Your task to perform on an android device: Open the web browser Image 0: 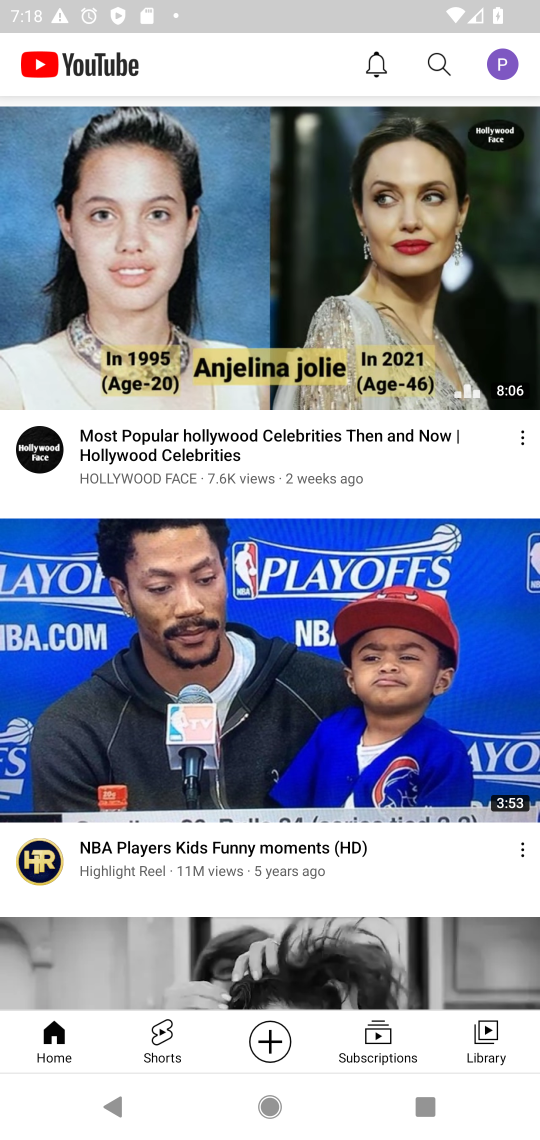
Step 0: press home button
Your task to perform on an android device: Open the web browser Image 1: 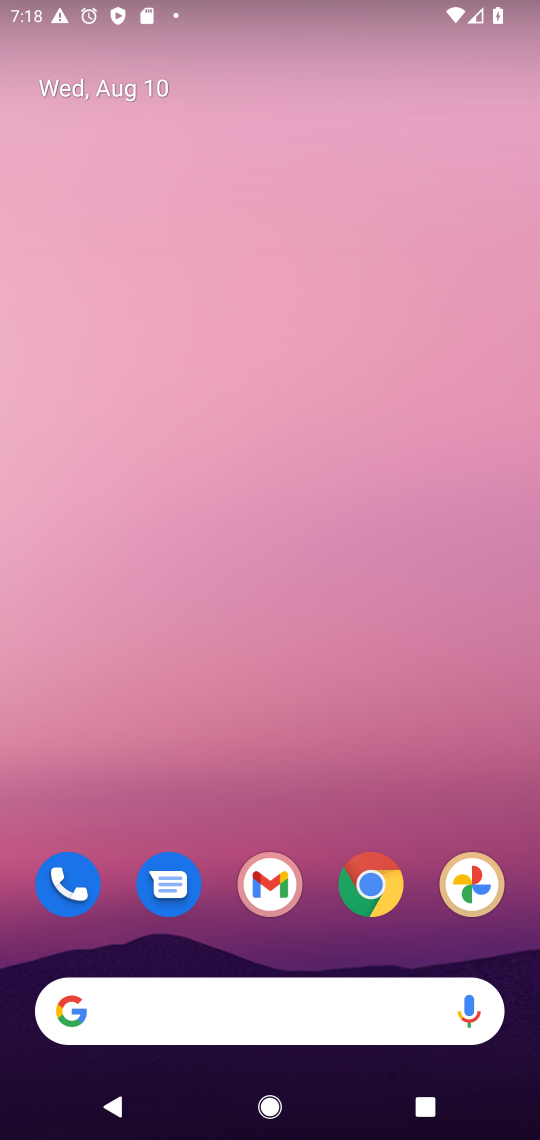
Step 1: drag from (263, 547) to (516, 591)
Your task to perform on an android device: Open the web browser Image 2: 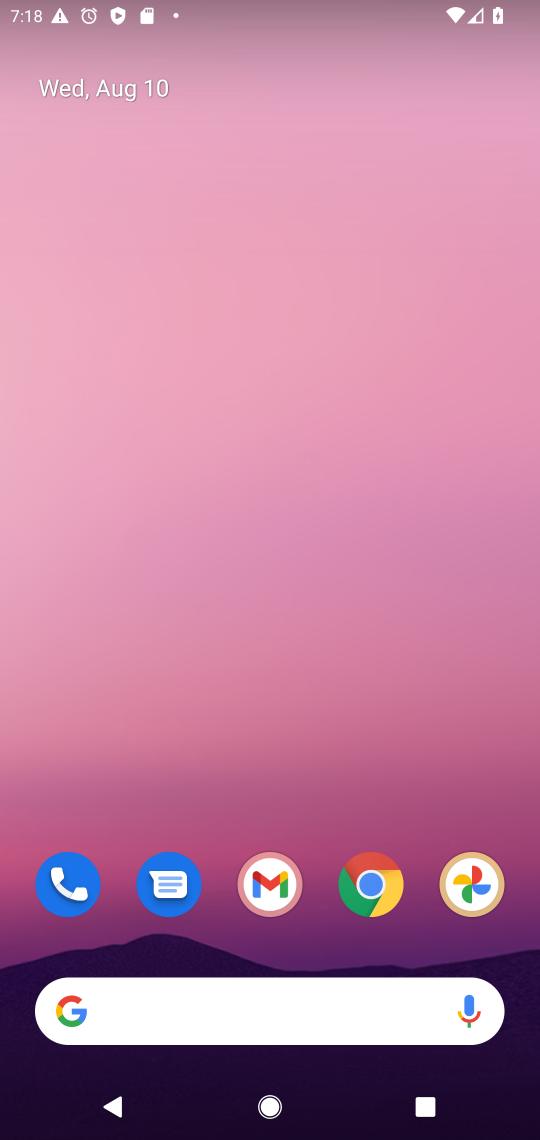
Step 2: click (516, 591)
Your task to perform on an android device: Open the web browser Image 3: 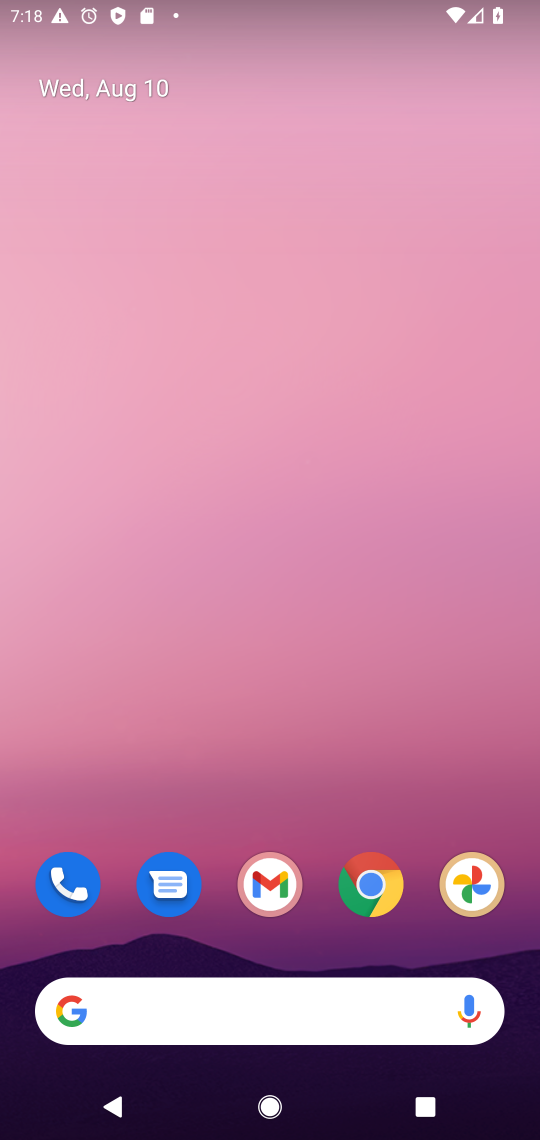
Step 3: click (516, 591)
Your task to perform on an android device: Open the web browser Image 4: 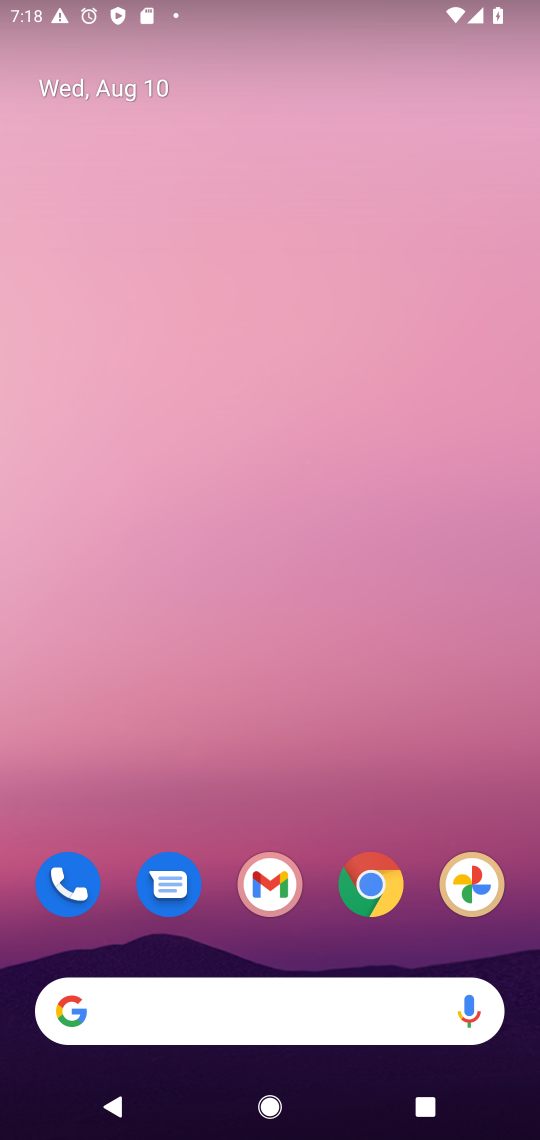
Step 4: click (516, 591)
Your task to perform on an android device: Open the web browser Image 5: 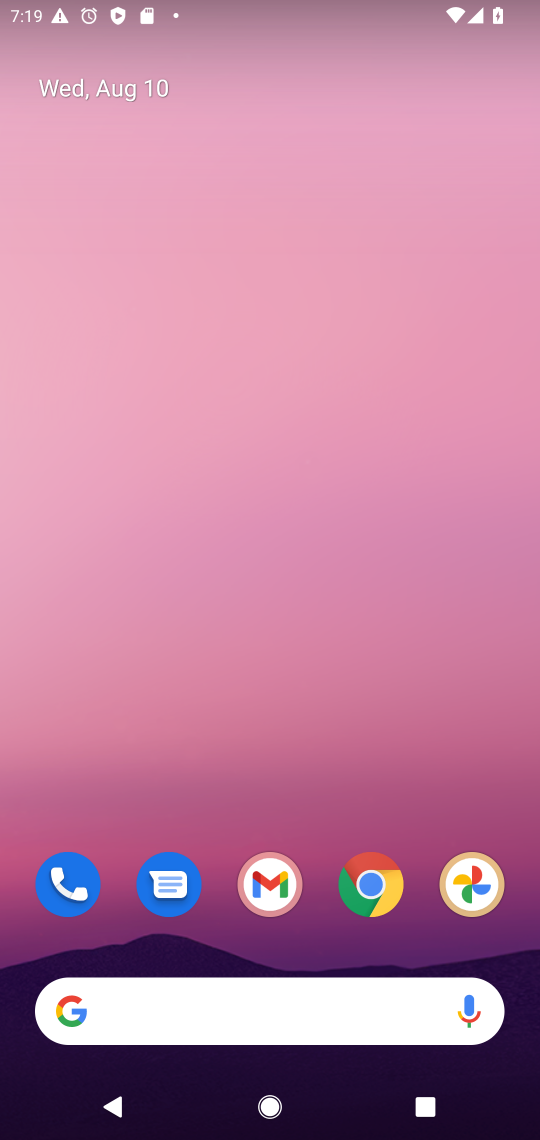
Step 5: task complete